Your task to perform on an android device: Open network settings Image 0: 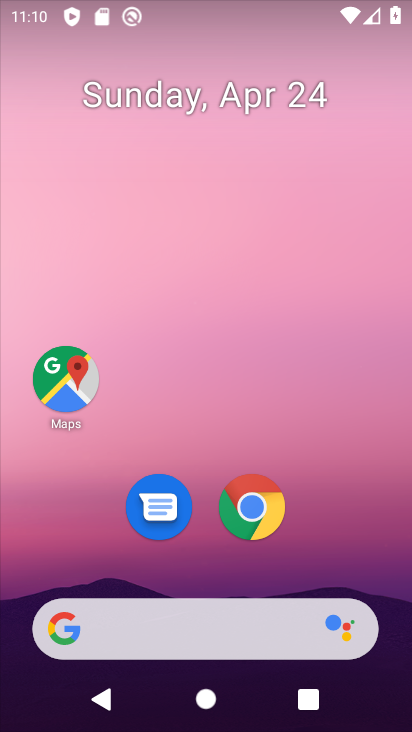
Step 0: drag from (338, 526) to (267, 12)
Your task to perform on an android device: Open network settings Image 1: 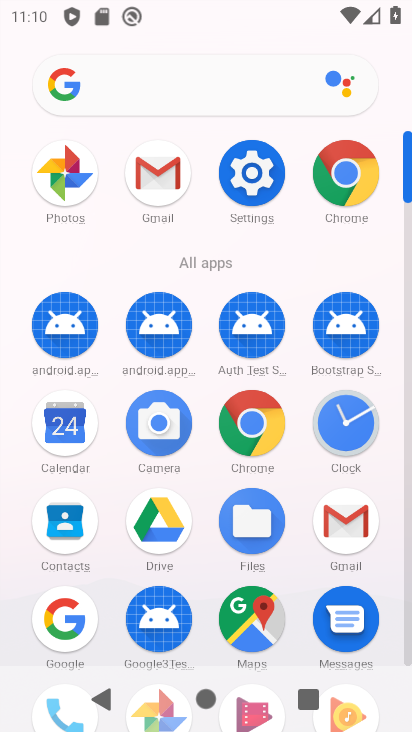
Step 1: drag from (11, 519) to (29, 211)
Your task to perform on an android device: Open network settings Image 2: 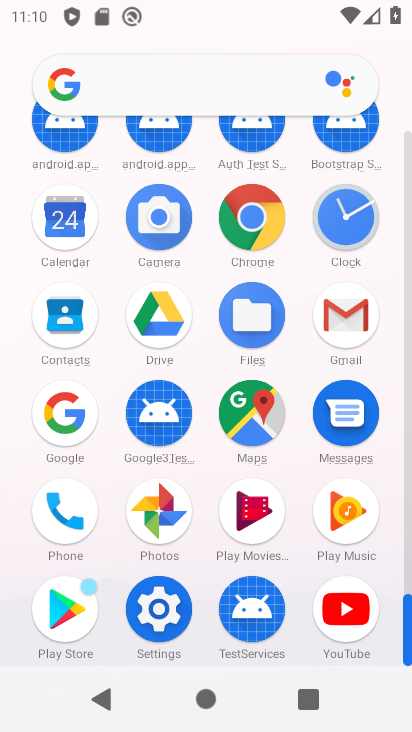
Step 2: click (157, 606)
Your task to perform on an android device: Open network settings Image 3: 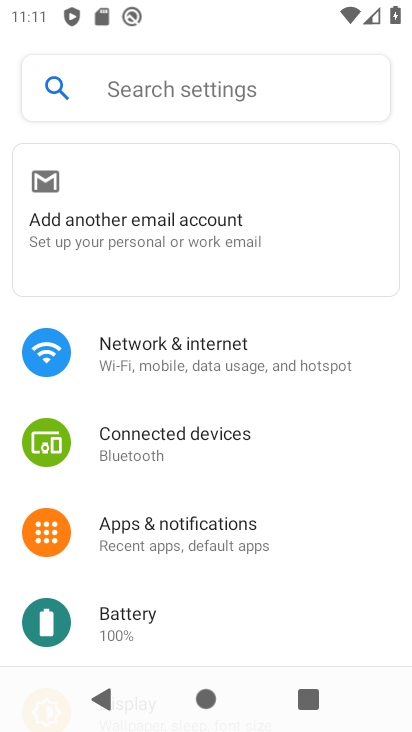
Step 3: click (221, 347)
Your task to perform on an android device: Open network settings Image 4: 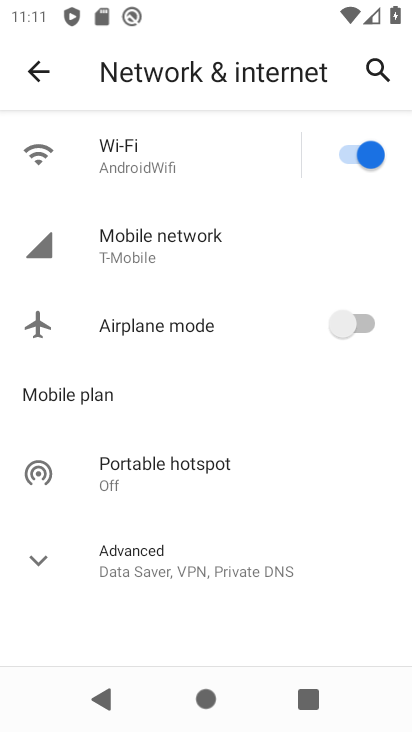
Step 4: click (43, 549)
Your task to perform on an android device: Open network settings Image 5: 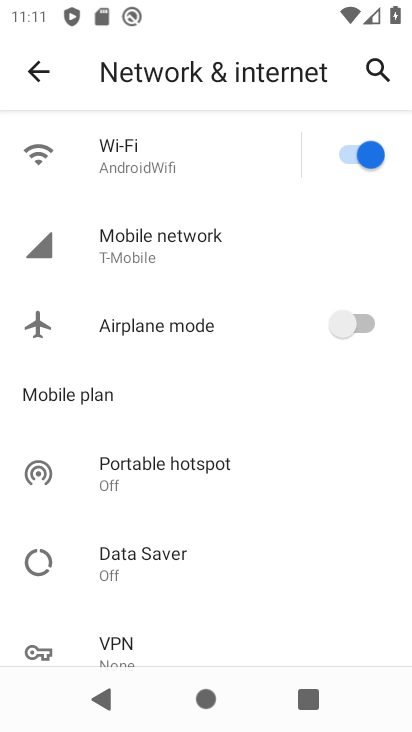
Step 5: task complete